Your task to perform on an android device: choose inbox layout in the gmail app Image 0: 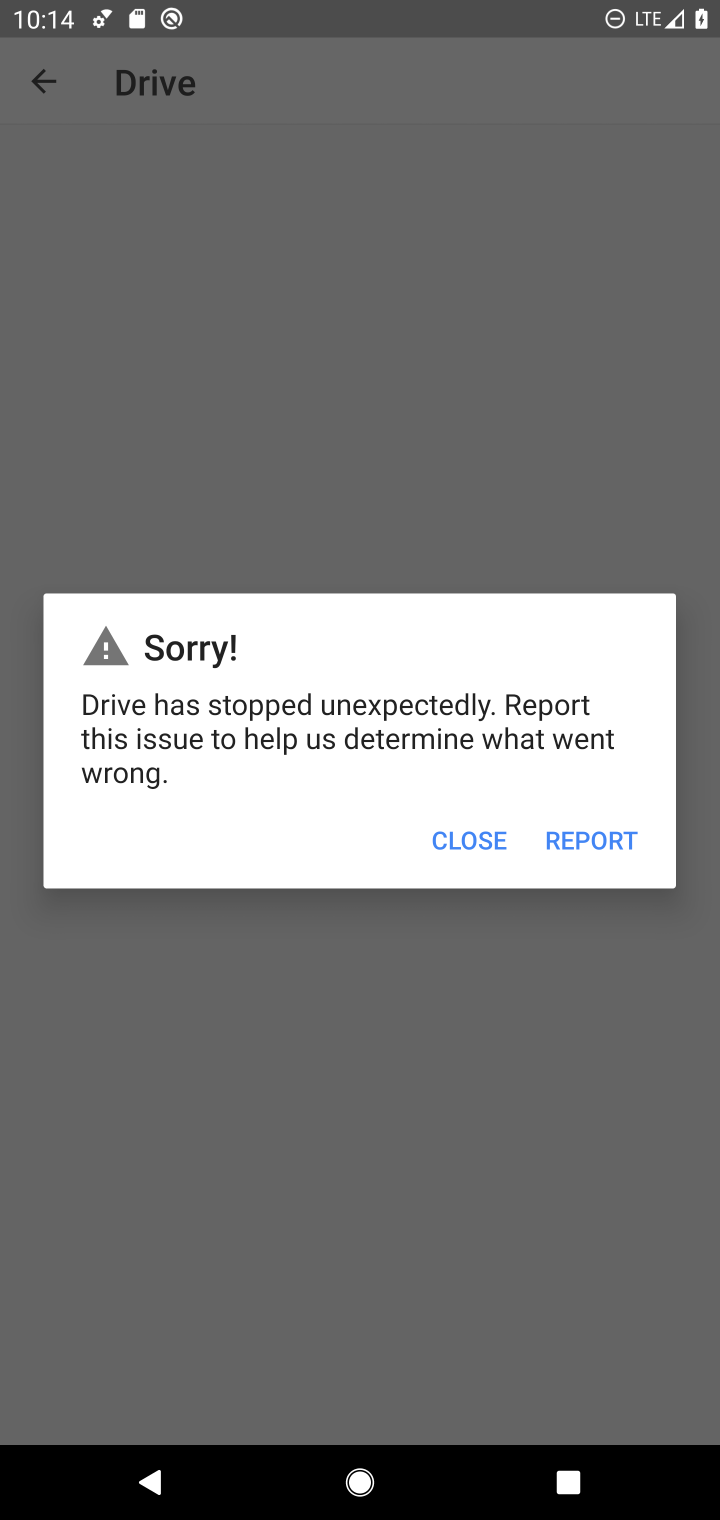
Step 0: press home button
Your task to perform on an android device: choose inbox layout in the gmail app Image 1: 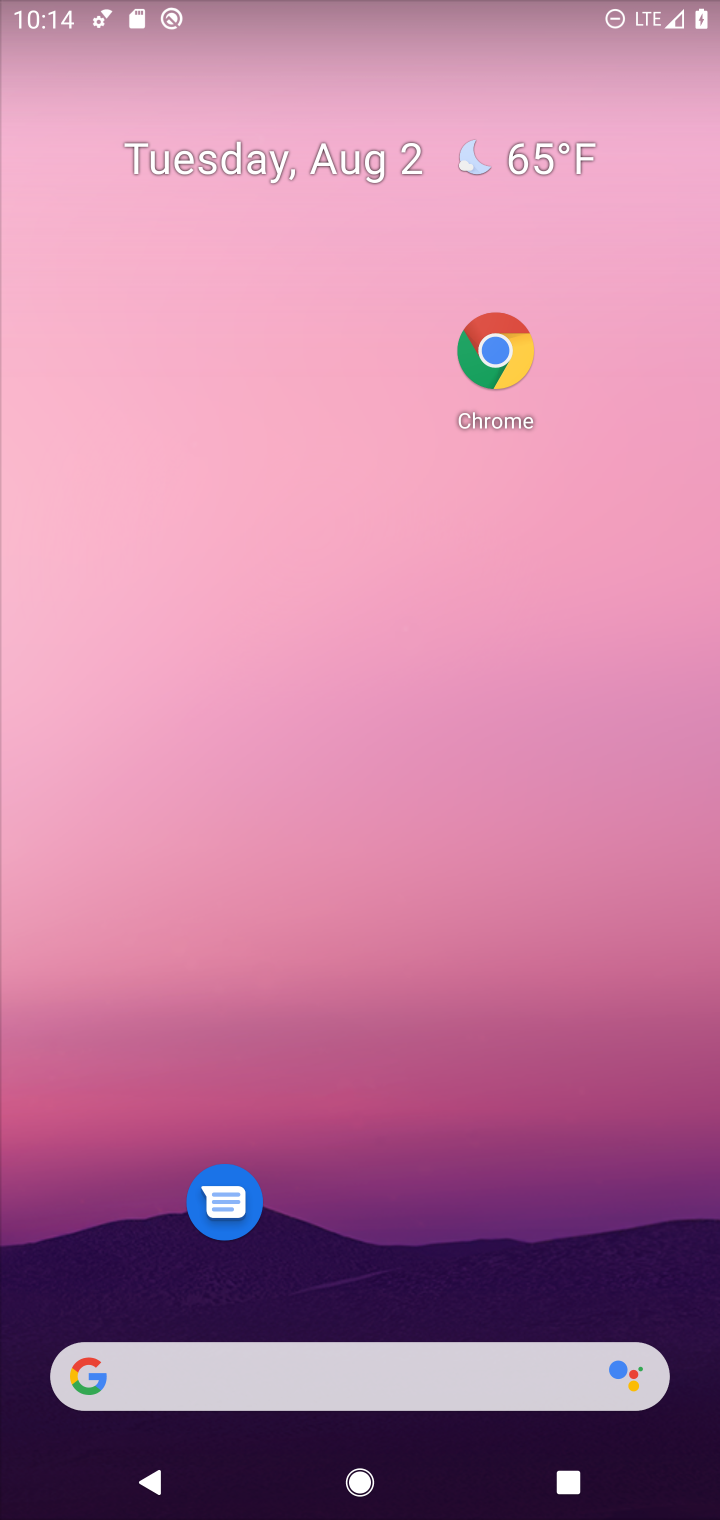
Step 1: drag from (340, 1293) to (379, 66)
Your task to perform on an android device: choose inbox layout in the gmail app Image 2: 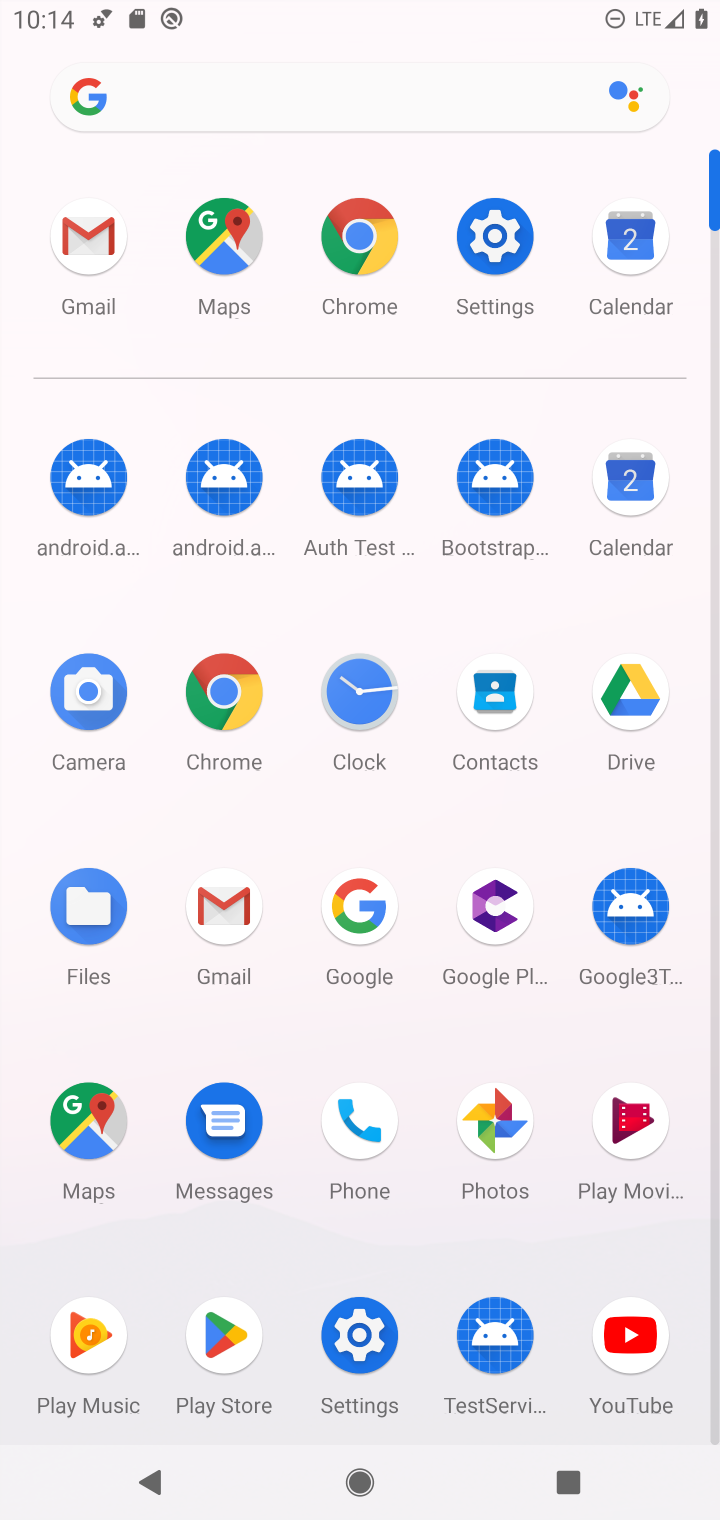
Step 2: click (69, 265)
Your task to perform on an android device: choose inbox layout in the gmail app Image 3: 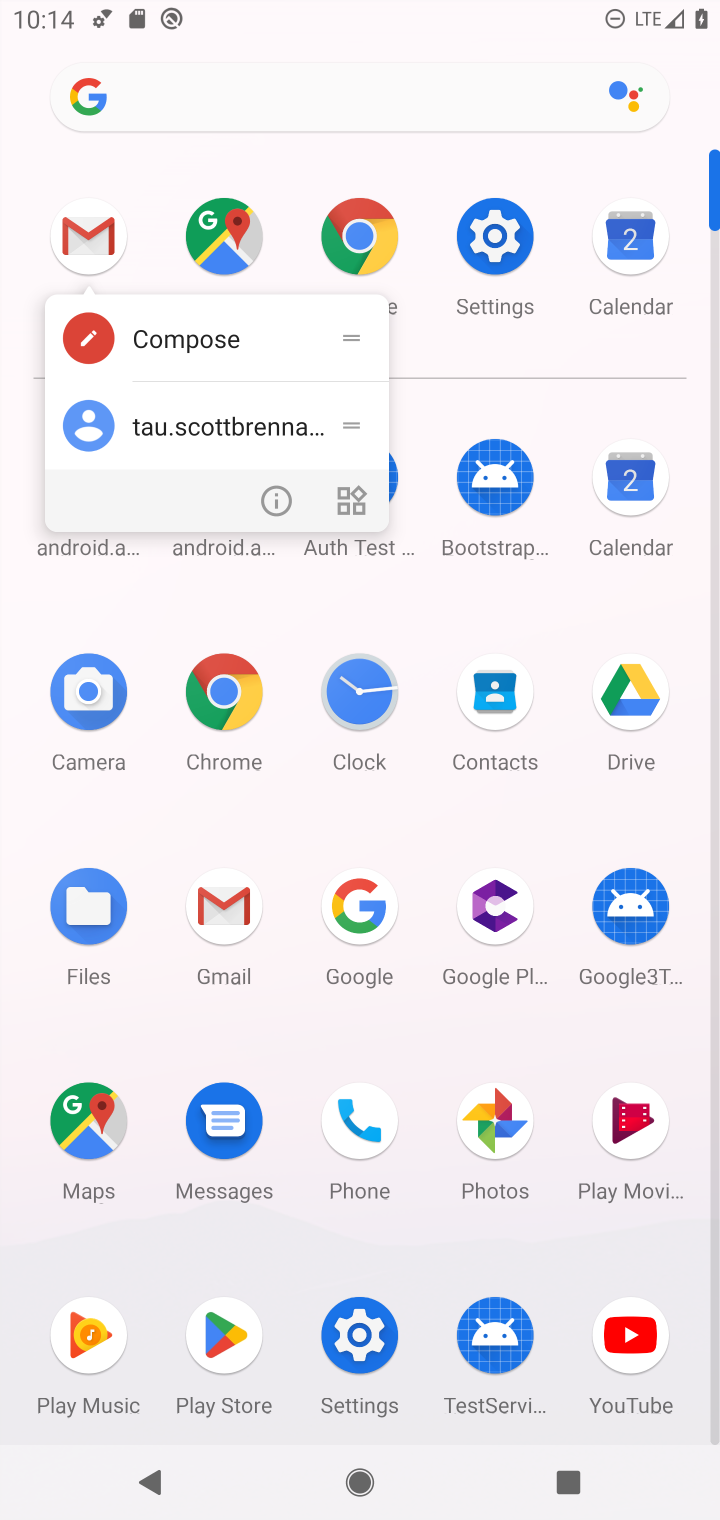
Step 3: click (71, 253)
Your task to perform on an android device: choose inbox layout in the gmail app Image 4: 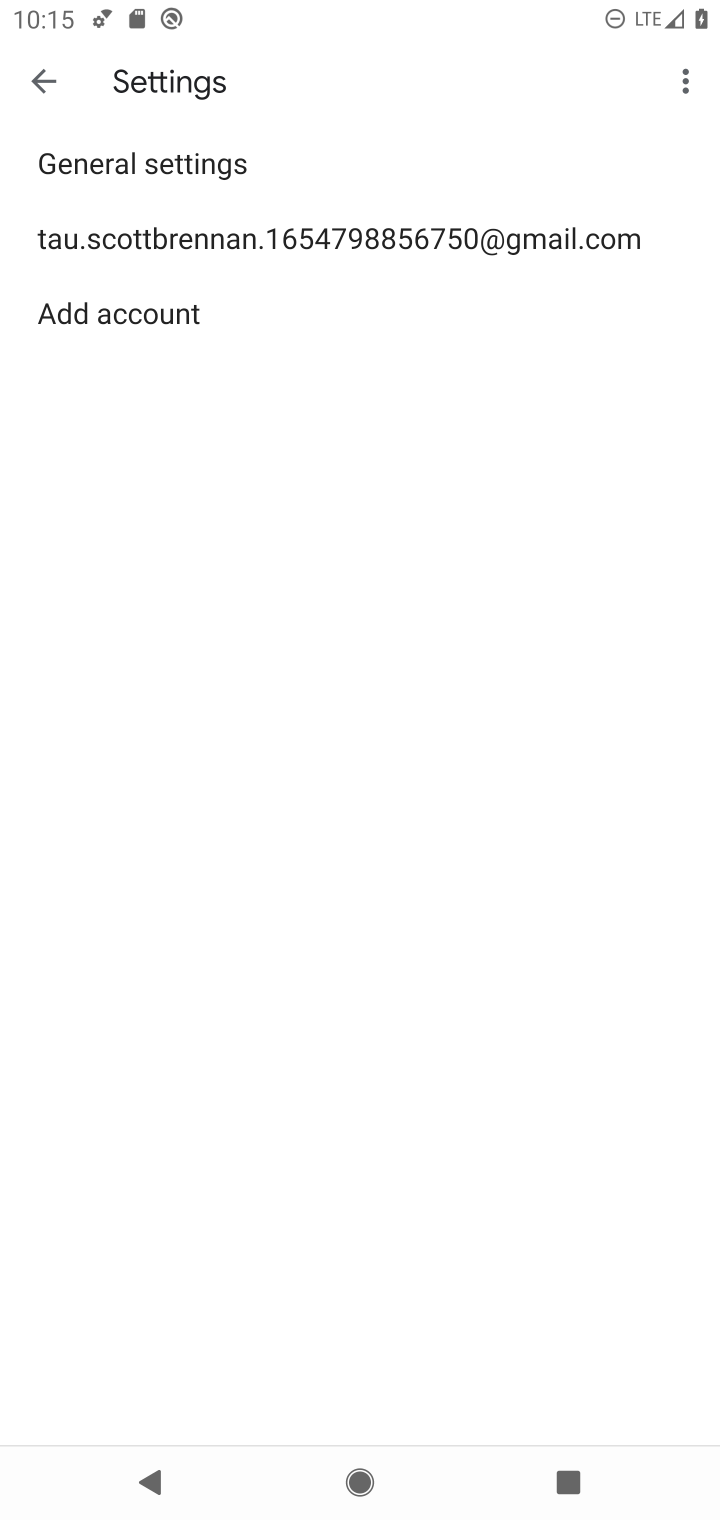
Step 4: click (161, 244)
Your task to perform on an android device: choose inbox layout in the gmail app Image 5: 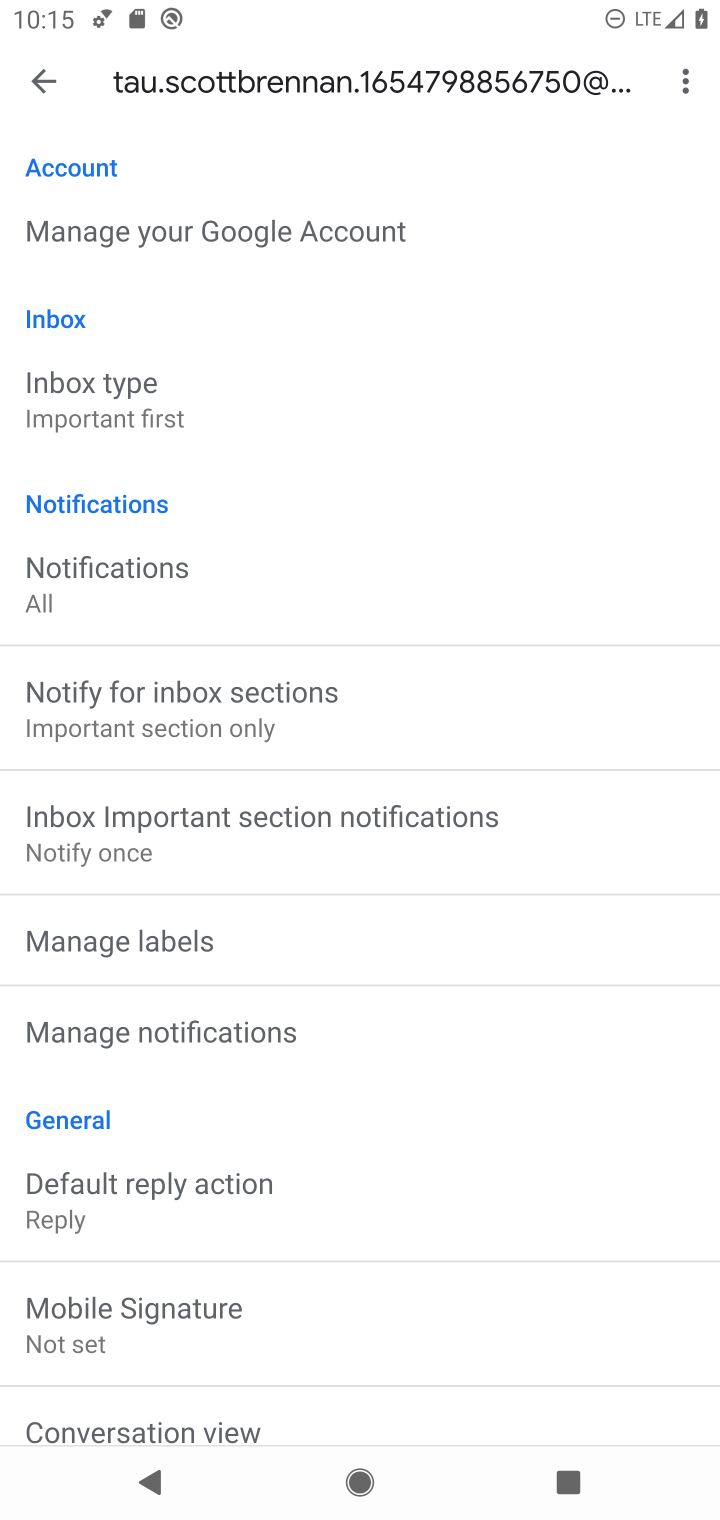
Step 5: click (119, 417)
Your task to perform on an android device: choose inbox layout in the gmail app Image 6: 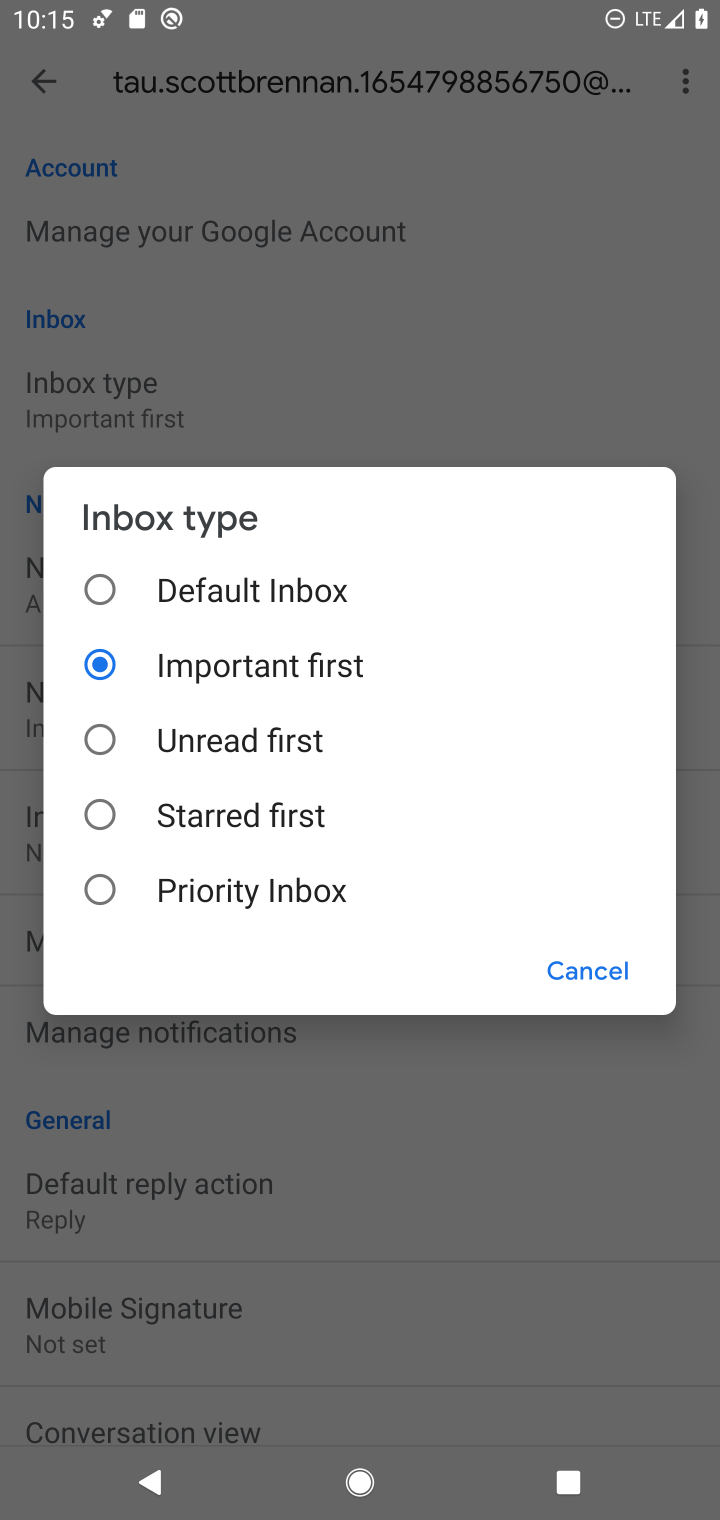
Step 6: click (105, 823)
Your task to perform on an android device: choose inbox layout in the gmail app Image 7: 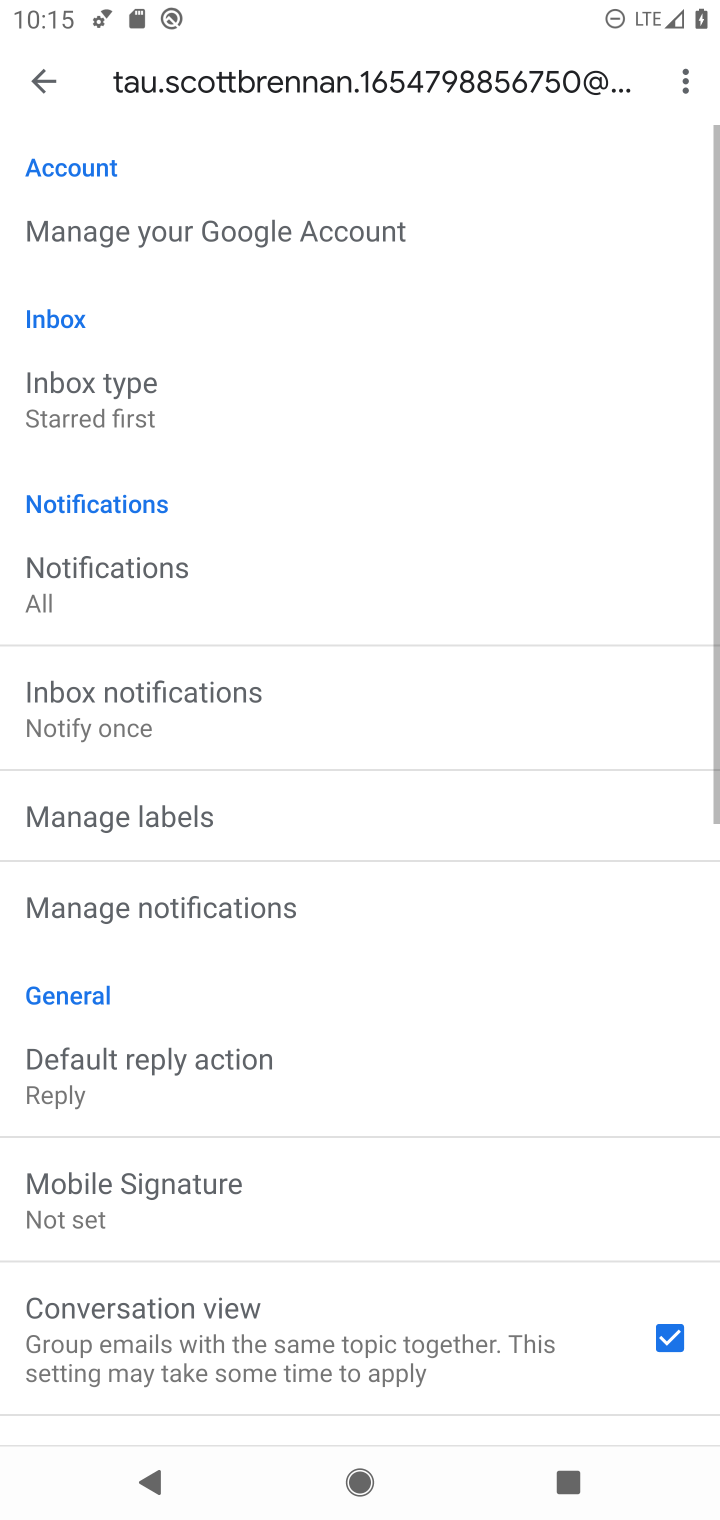
Step 7: task complete